Your task to perform on an android device: Open maps Image 0: 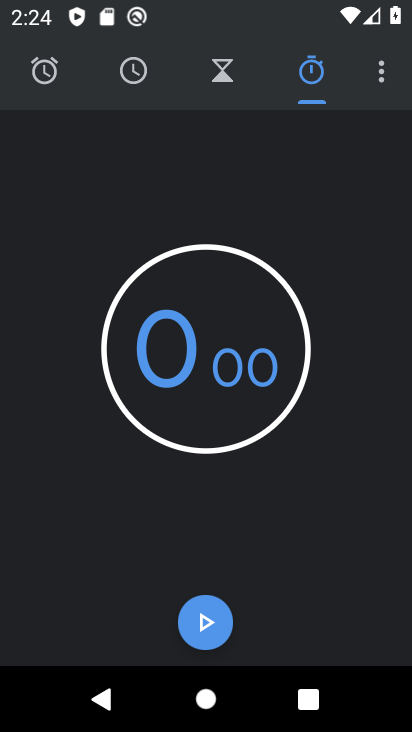
Step 0: press home button
Your task to perform on an android device: Open maps Image 1: 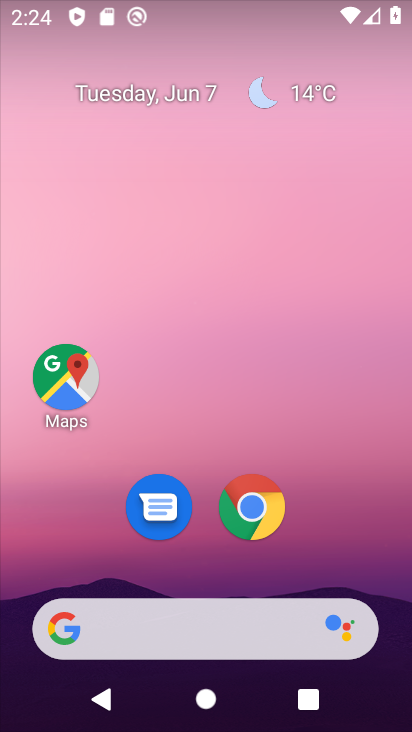
Step 1: click (69, 377)
Your task to perform on an android device: Open maps Image 2: 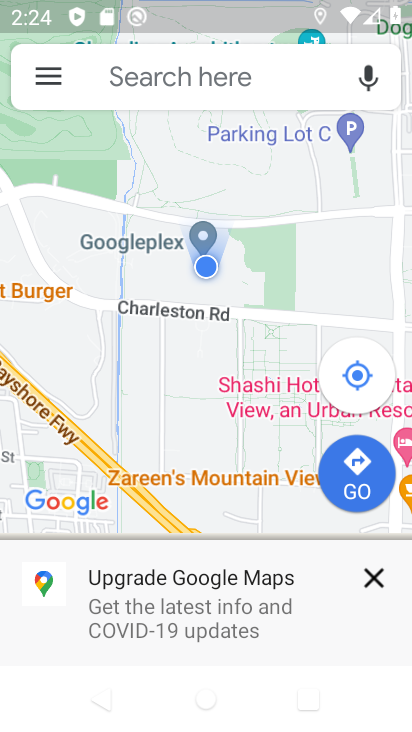
Step 2: task complete